Your task to perform on an android device: change the clock display to digital Image 0: 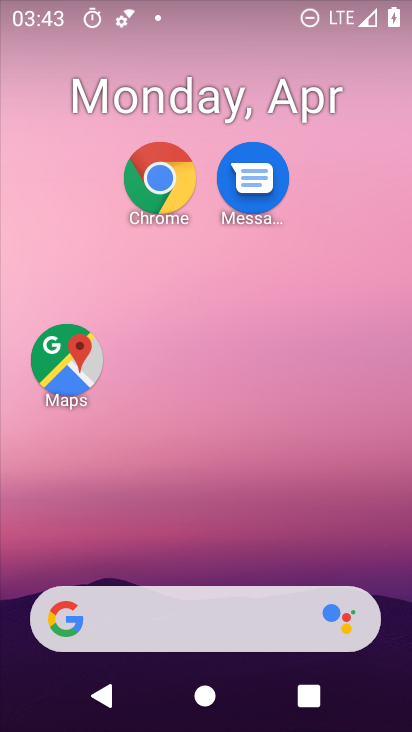
Step 0: drag from (226, 417) to (311, 4)
Your task to perform on an android device: change the clock display to digital Image 1: 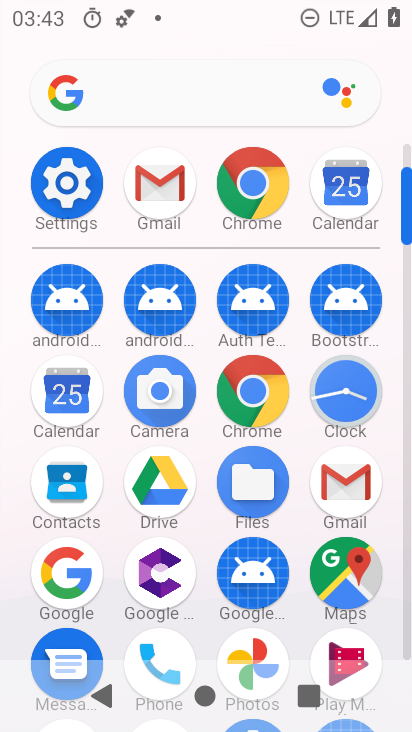
Step 1: click (345, 407)
Your task to perform on an android device: change the clock display to digital Image 2: 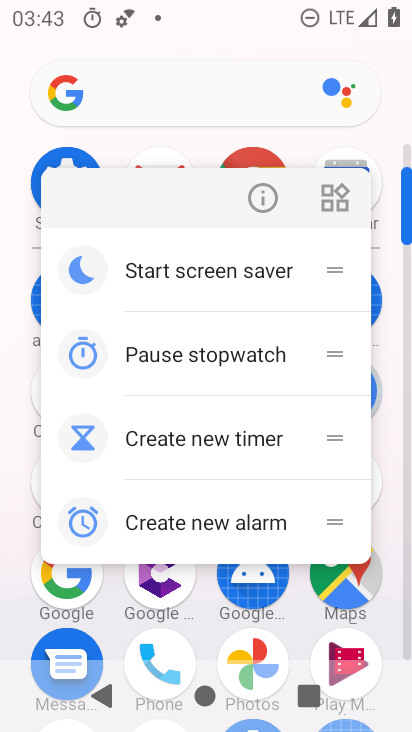
Step 2: click (377, 395)
Your task to perform on an android device: change the clock display to digital Image 3: 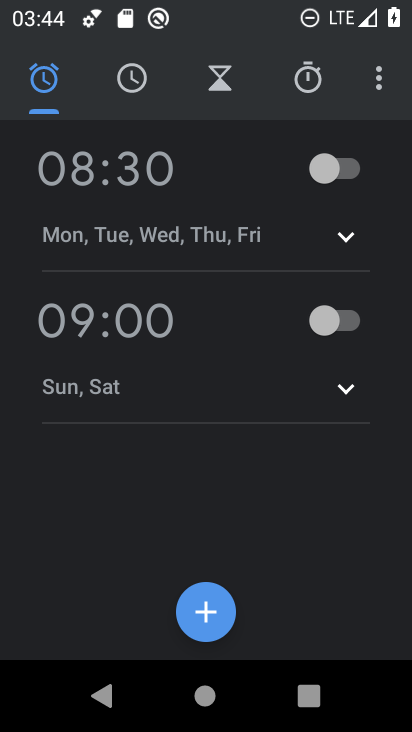
Step 3: click (379, 82)
Your task to perform on an android device: change the clock display to digital Image 4: 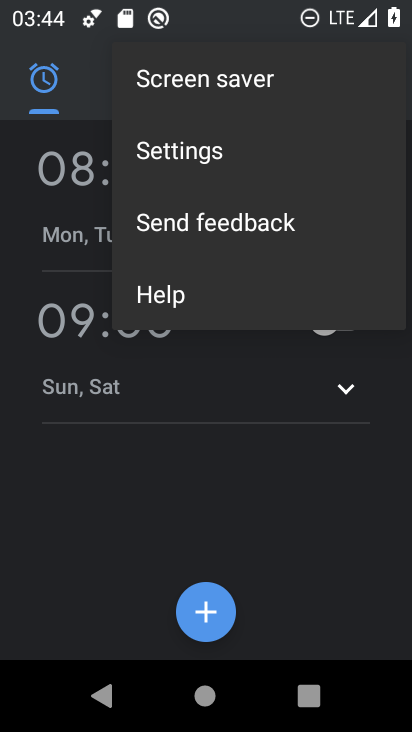
Step 4: click (316, 154)
Your task to perform on an android device: change the clock display to digital Image 5: 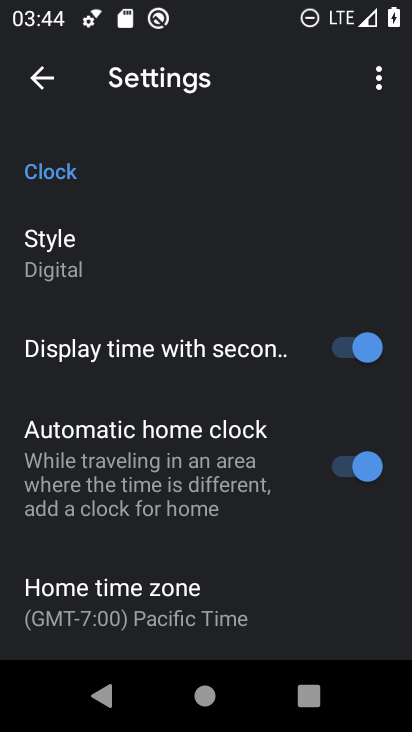
Step 5: click (100, 256)
Your task to perform on an android device: change the clock display to digital Image 6: 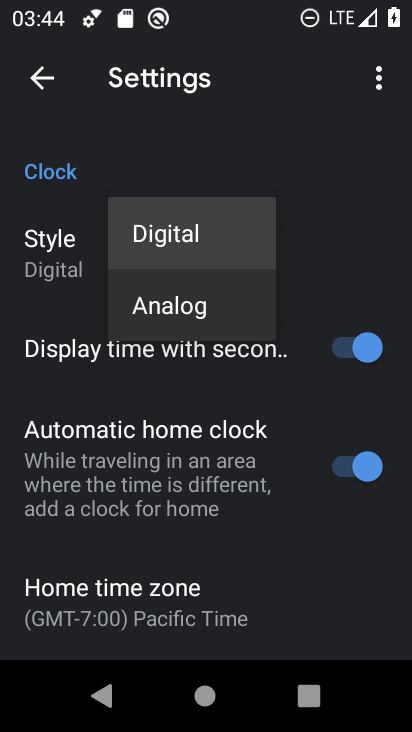
Step 6: task complete